Your task to perform on an android device: change the upload size in google photos Image 0: 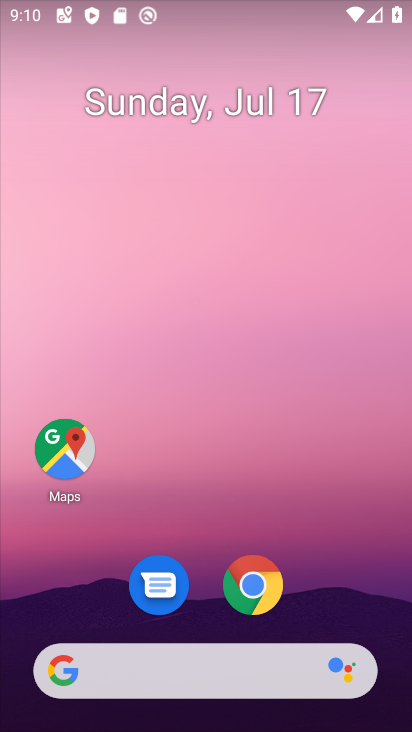
Step 0: drag from (286, 467) to (211, 21)
Your task to perform on an android device: change the upload size in google photos Image 1: 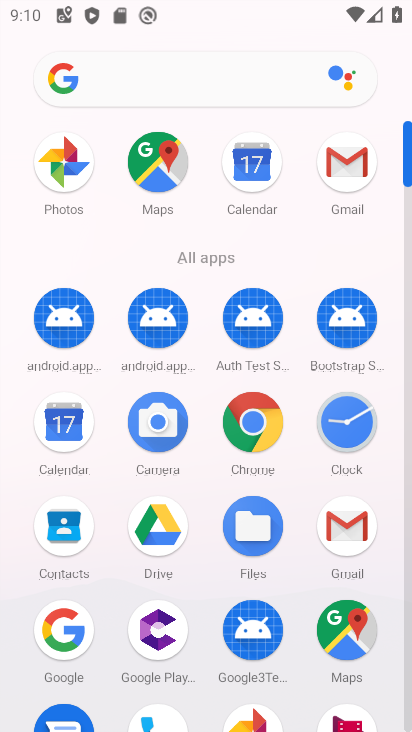
Step 1: click (63, 164)
Your task to perform on an android device: change the upload size in google photos Image 2: 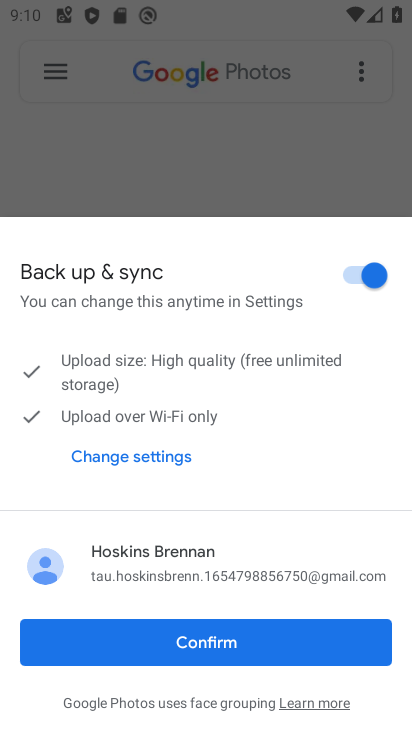
Step 2: click (317, 616)
Your task to perform on an android device: change the upload size in google photos Image 3: 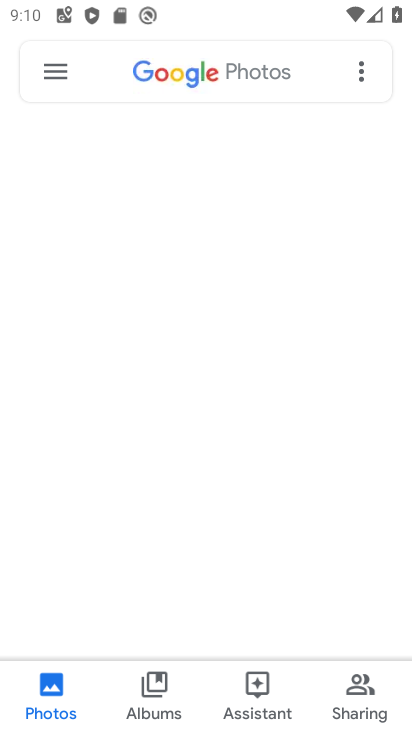
Step 3: click (323, 644)
Your task to perform on an android device: change the upload size in google photos Image 4: 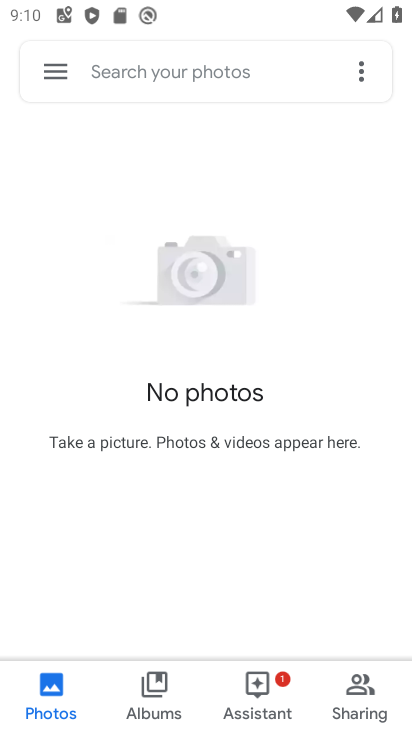
Step 4: click (55, 72)
Your task to perform on an android device: change the upload size in google photos Image 5: 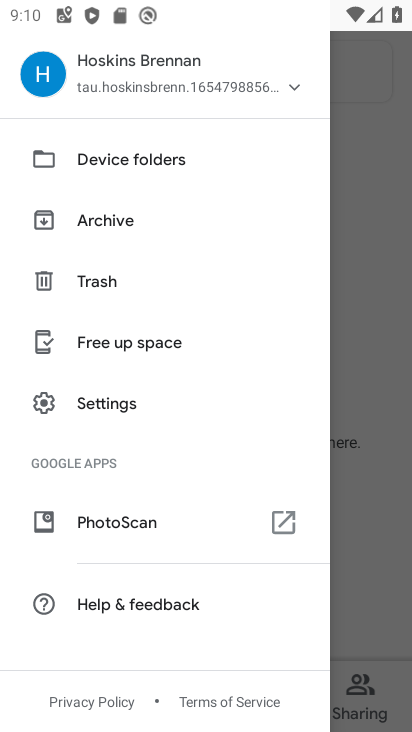
Step 5: click (124, 393)
Your task to perform on an android device: change the upload size in google photos Image 6: 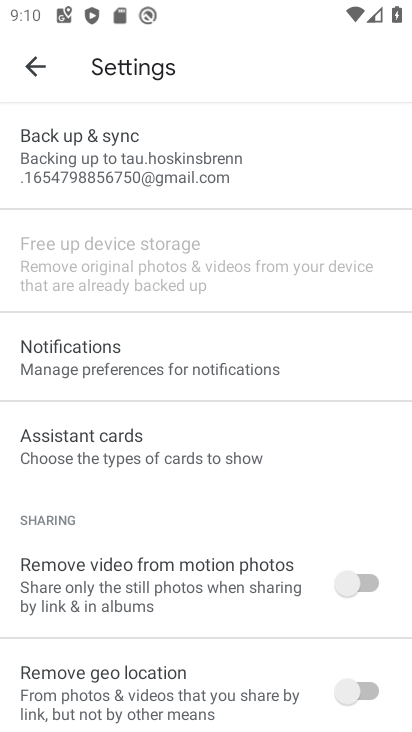
Step 6: click (122, 168)
Your task to perform on an android device: change the upload size in google photos Image 7: 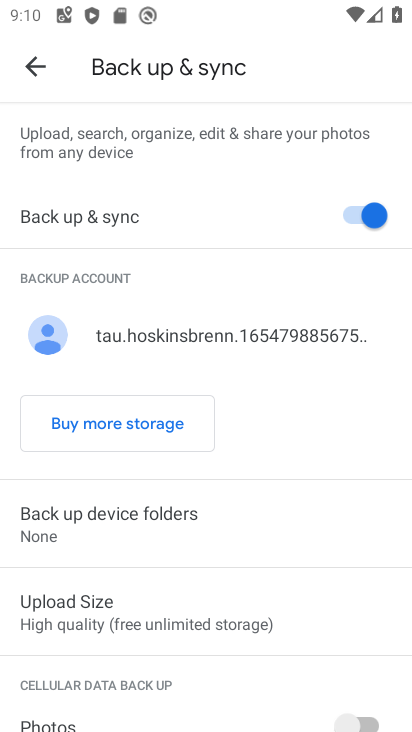
Step 7: click (142, 608)
Your task to perform on an android device: change the upload size in google photos Image 8: 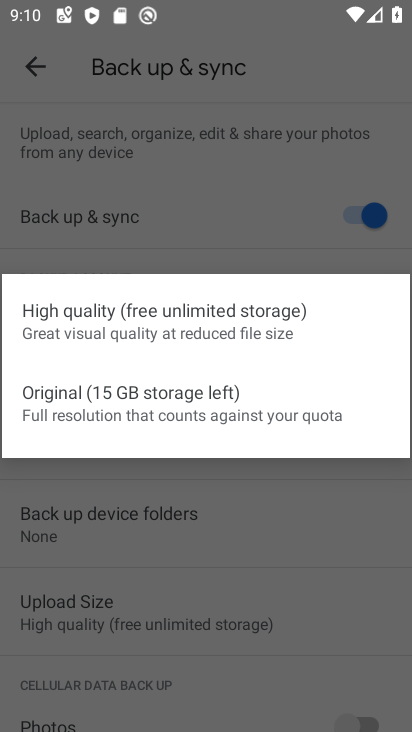
Step 8: click (142, 398)
Your task to perform on an android device: change the upload size in google photos Image 9: 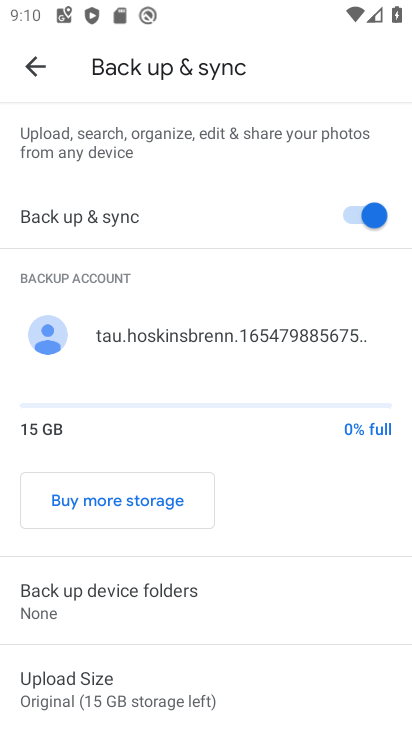
Step 9: task complete